Your task to perform on an android device: Open display settings Image 0: 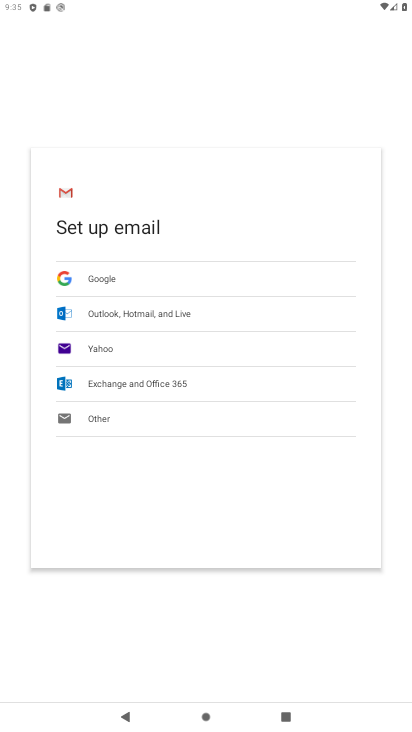
Step 0: press home button
Your task to perform on an android device: Open display settings Image 1: 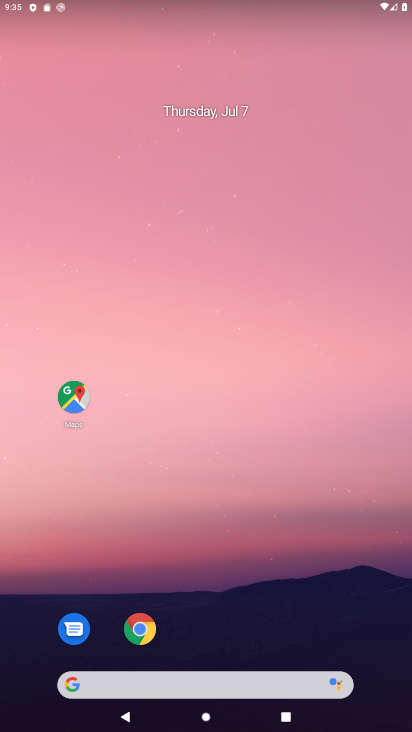
Step 1: click (334, 19)
Your task to perform on an android device: Open display settings Image 2: 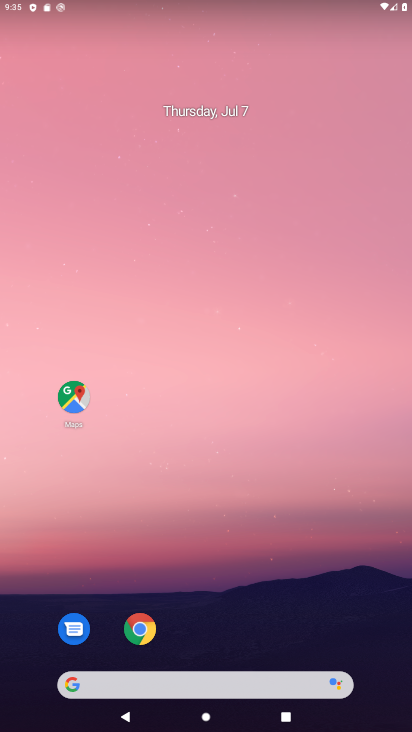
Step 2: drag from (41, 693) to (276, 58)
Your task to perform on an android device: Open display settings Image 3: 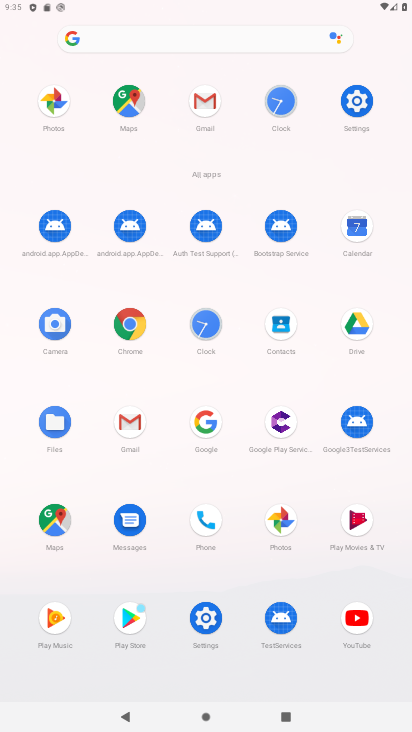
Step 3: click (202, 618)
Your task to perform on an android device: Open display settings Image 4: 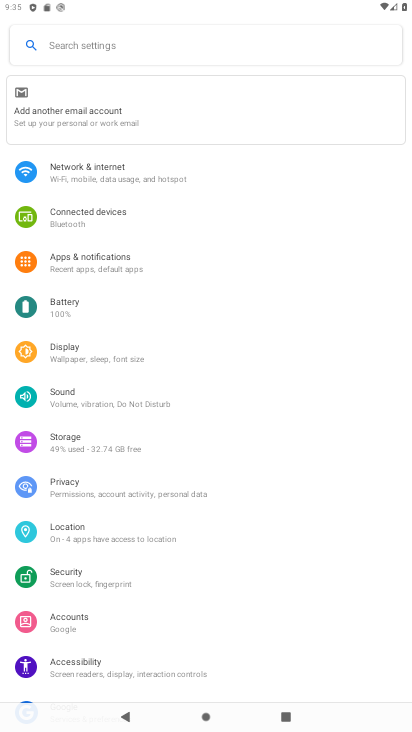
Step 4: click (78, 353)
Your task to perform on an android device: Open display settings Image 5: 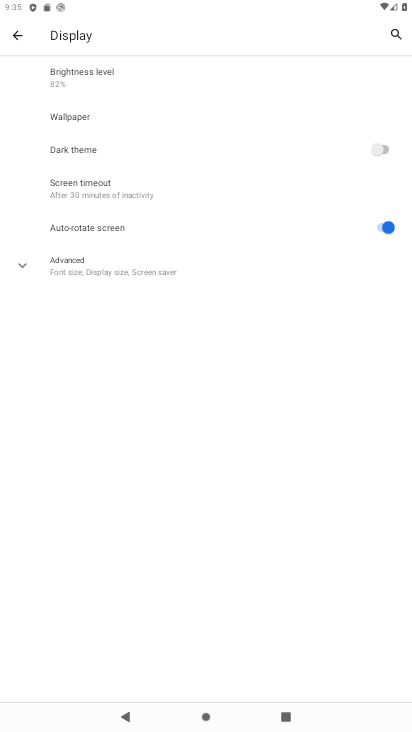
Step 5: task complete